Your task to perform on an android device: check data usage Image 0: 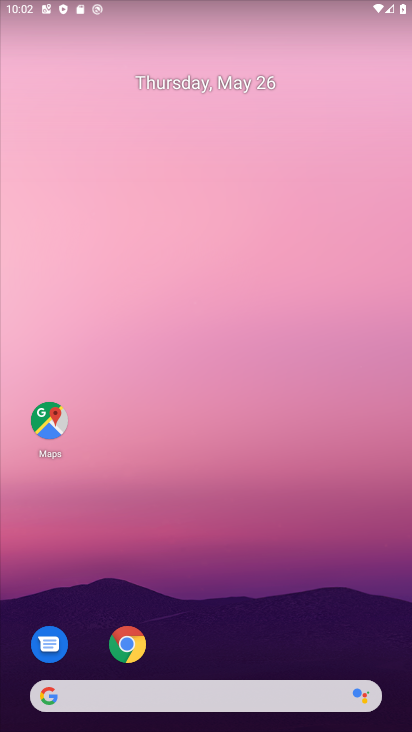
Step 0: drag from (359, 652) to (372, 409)
Your task to perform on an android device: check data usage Image 1: 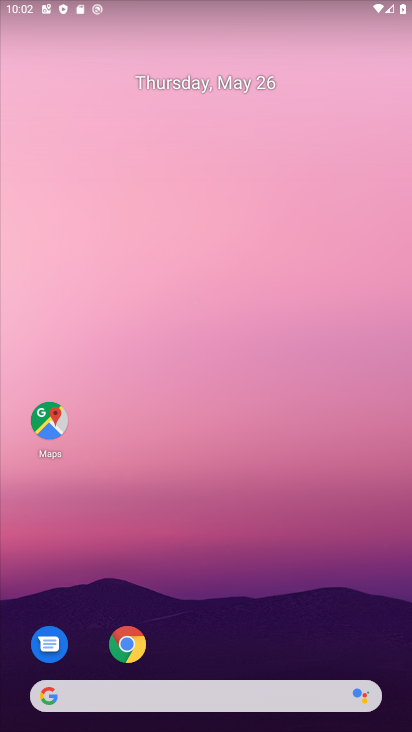
Step 1: drag from (344, 645) to (375, 113)
Your task to perform on an android device: check data usage Image 2: 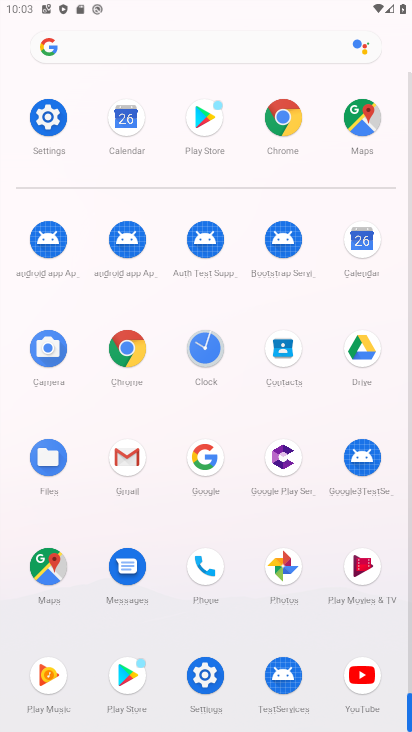
Step 2: click (211, 682)
Your task to perform on an android device: check data usage Image 3: 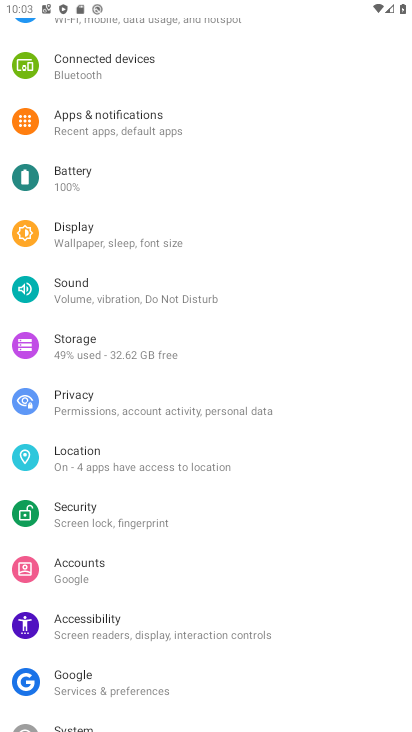
Step 3: drag from (321, 288) to (322, 447)
Your task to perform on an android device: check data usage Image 4: 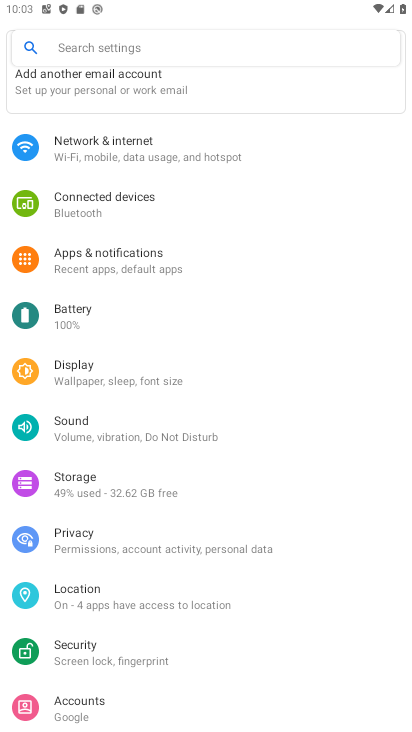
Step 4: drag from (315, 245) to (321, 380)
Your task to perform on an android device: check data usage Image 5: 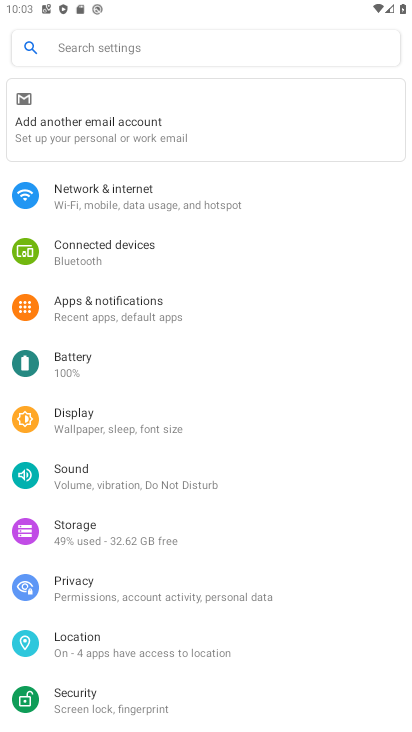
Step 5: drag from (325, 598) to (332, 410)
Your task to perform on an android device: check data usage Image 6: 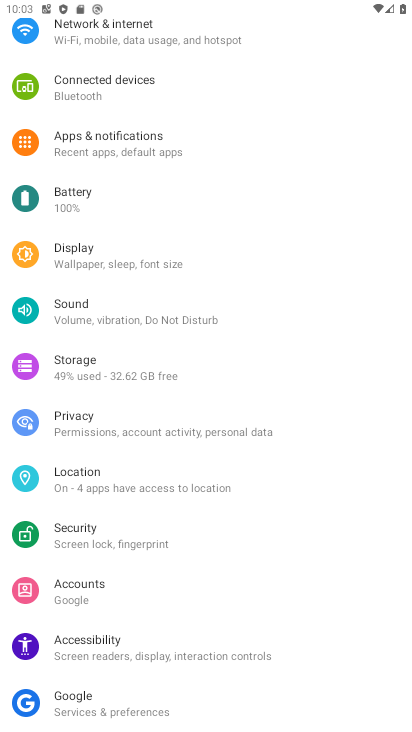
Step 6: drag from (347, 597) to (349, 438)
Your task to perform on an android device: check data usage Image 7: 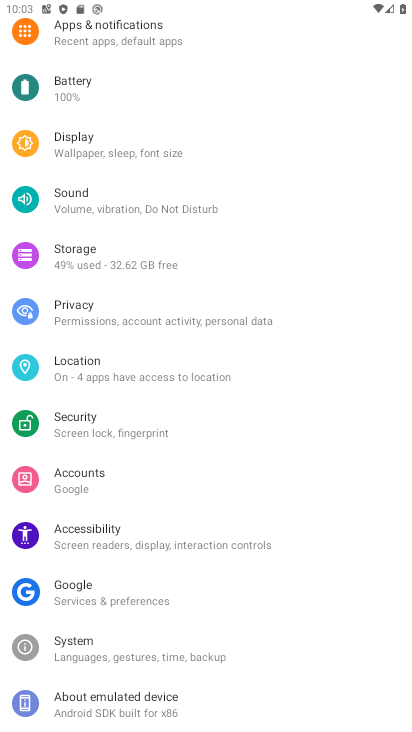
Step 7: drag from (336, 619) to (358, 382)
Your task to perform on an android device: check data usage Image 8: 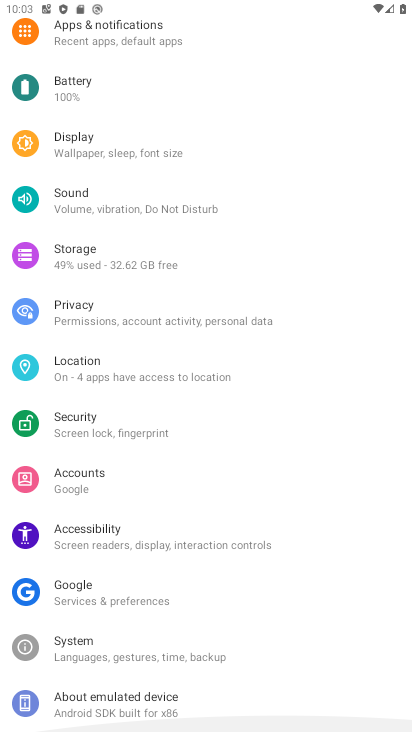
Step 8: drag from (357, 316) to (350, 491)
Your task to perform on an android device: check data usage Image 9: 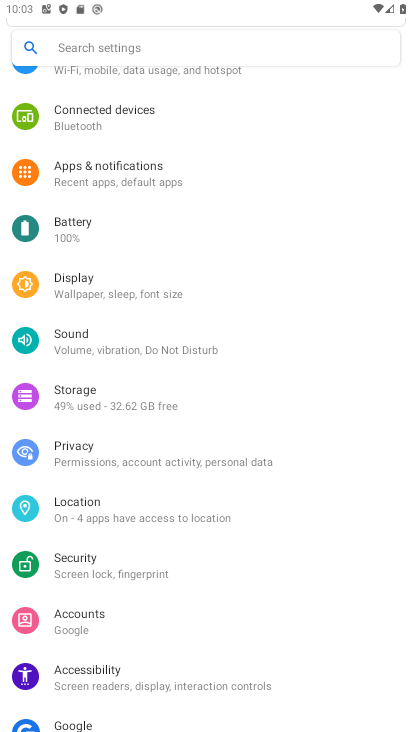
Step 9: drag from (331, 277) to (337, 458)
Your task to perform on an android device: check data usage Image 10: 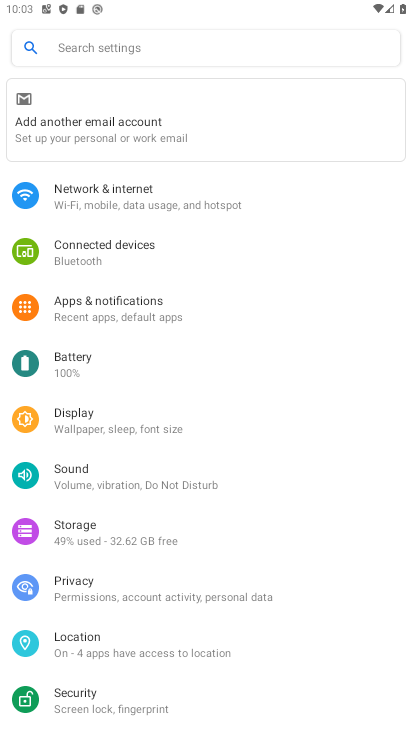
Step 10: drag from (336, 257) to (324, 467)
Your task to perform on an android device: check data usage Image 11: 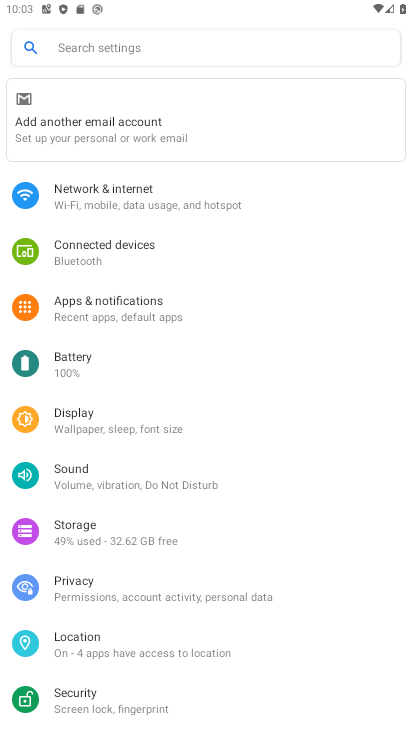
Step 11: click (212, 210)
Your task to perform on an android device: check data usage Image 12: 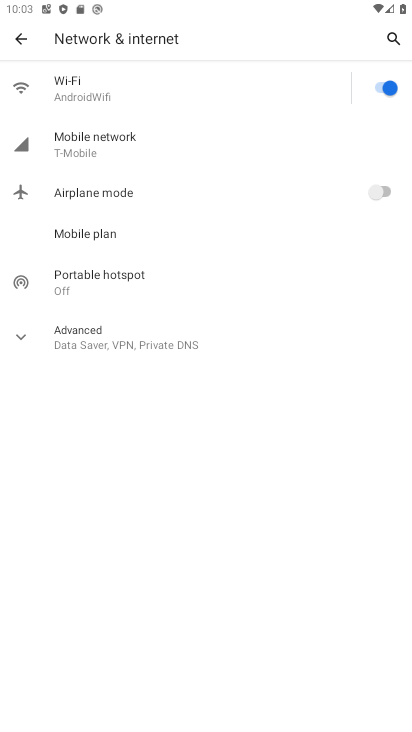
Step 12: click (134, 154)
Your task to perform on an android device: check data usage Image 13: 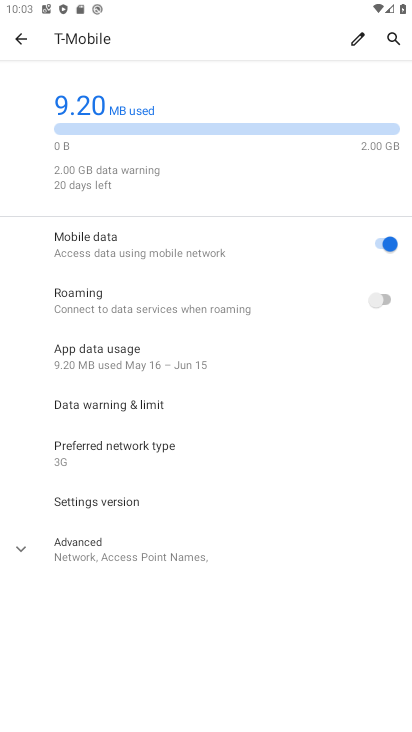
Step 13: click (169, 348)
Your task to perform on an android device: check data usage Image 14: 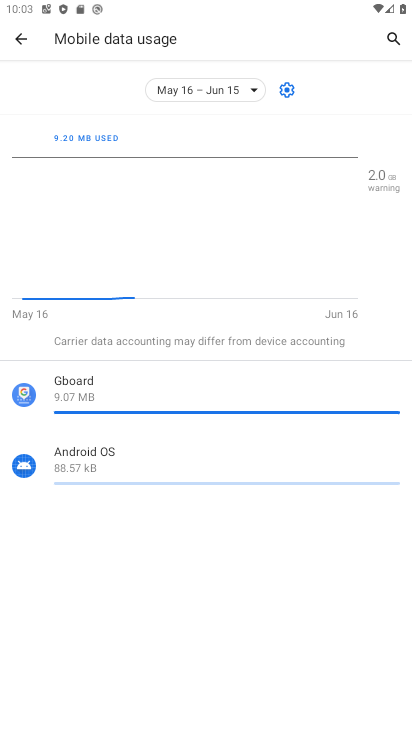
Step 14: task complete